Your task to perform on an android device: Open settings Image 0: 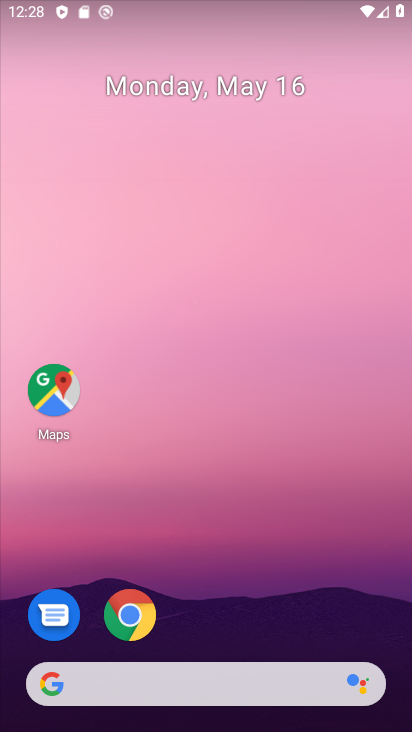
Step 0: drag from (325, 585) to (359, 106)
Your task to perform on an android device: Open settings Image 1: 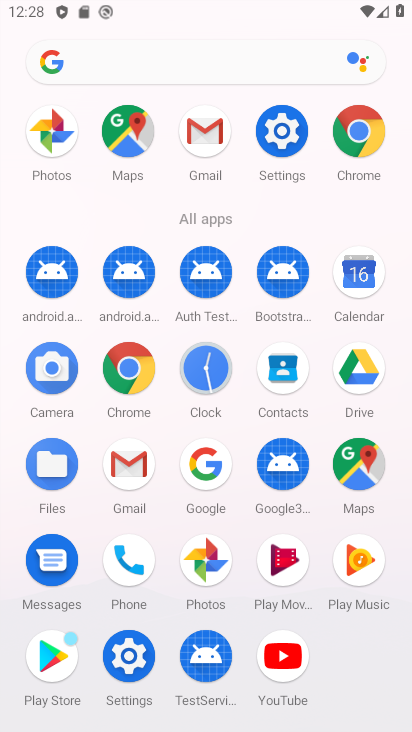
Step 1: click (292, 139)
Your task to perform on an android device: Open settings Image 2: 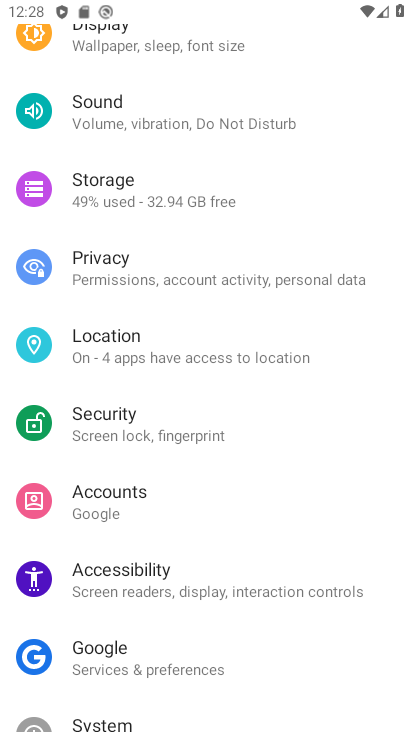
Step 2: task complete